Your task to perform on an android device: snooze an email in the gmail app Image 0: 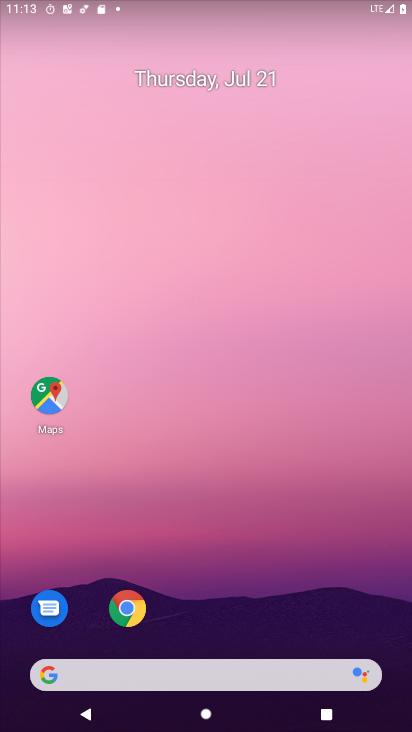
Step 0: drag from (207, 634) to (287, 29)
Your task to perform on an android device: snooze an email in the gmail app Image 1: 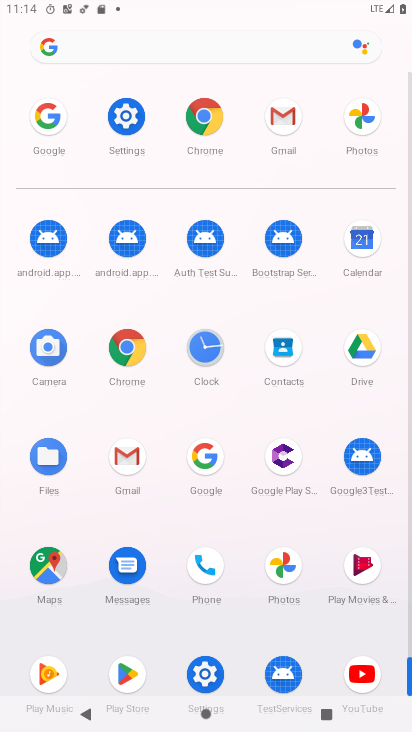
Step 1: click (127, 476)
Your task to perform on an android device: snooze an email in the gmail app Image 2: 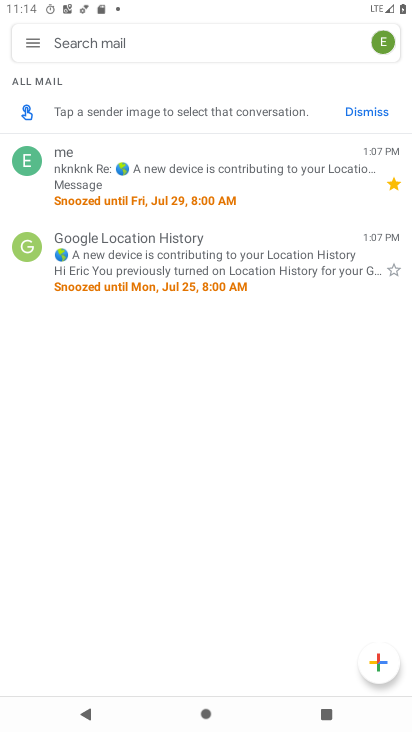
Step 2: click (128, 232)
Your task to perform on an android device: snooze an email in the gmail app Image 3: 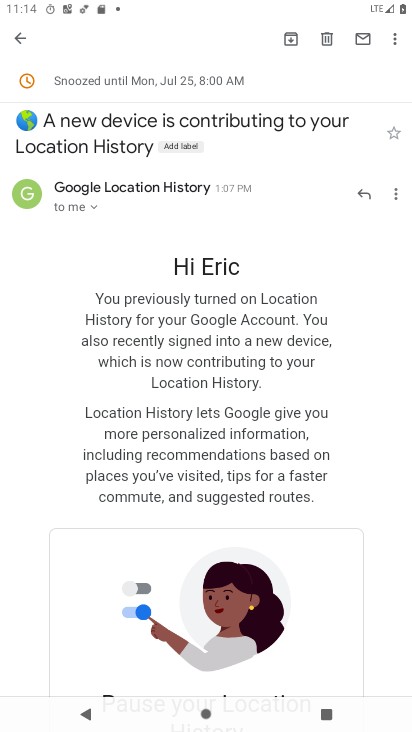
Step 3: click (392, 45)
Your task to perform on an android device: snooze an email in the gmail app Image 4: 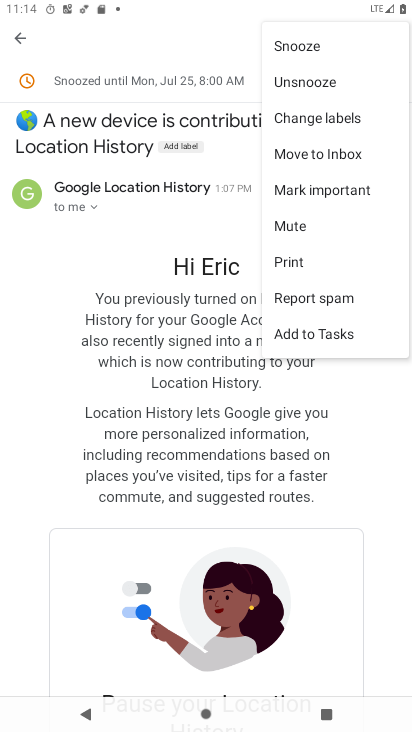
Step 4: click (303, 46)
Your task to perform on an android device: snooze an email in the gmail app Image 5: 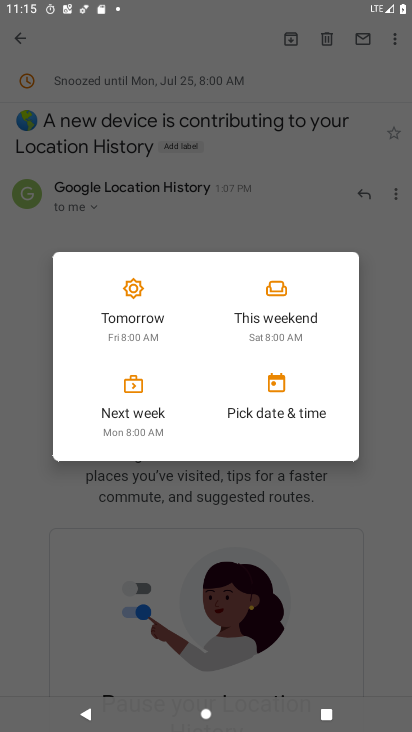
Step 5: click (125, 314)
Your task to perform on an android device: snooze an email in the gmail app Image 6: 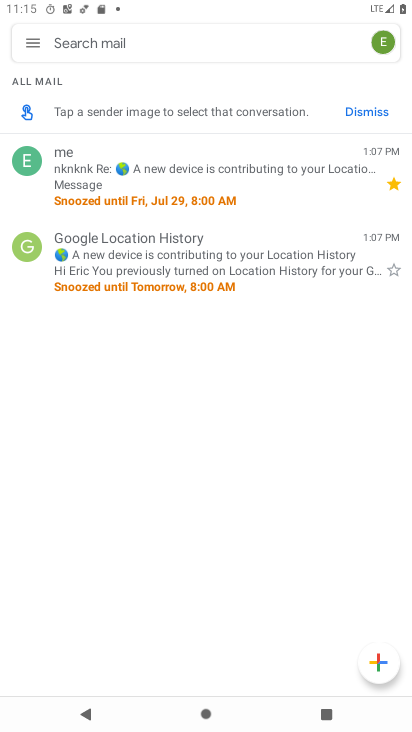
Step 6: task complete